Your task to perform on an android device: check data usage Image 0: 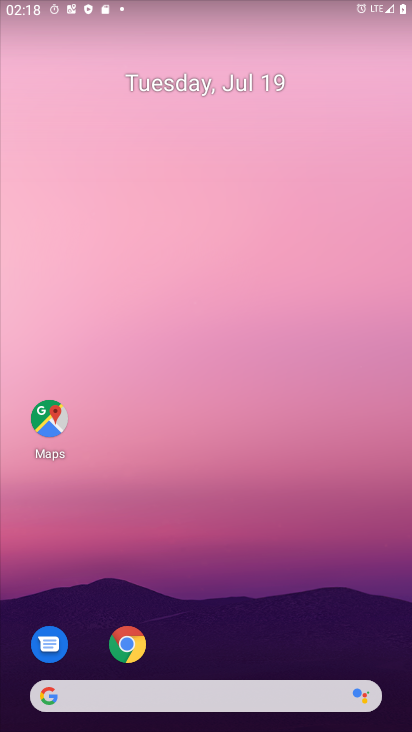
Step 0: drag from (234, 727) to (234, 211)
Your task to perform on an android device: check data usage Image 1: 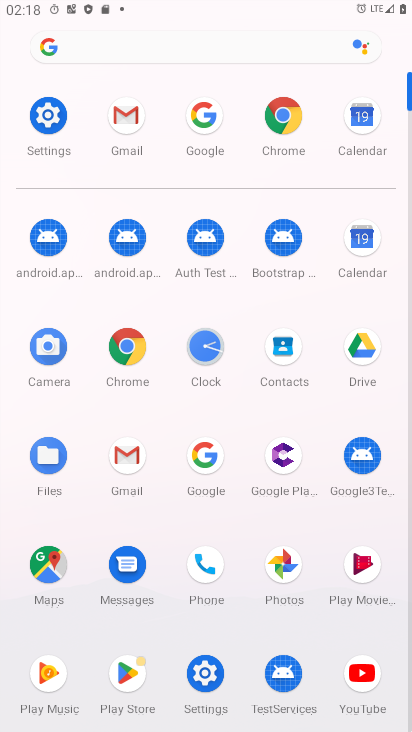
Step 1: click (55, 115)
Your task to perform on an android device: check data usage Image 2: 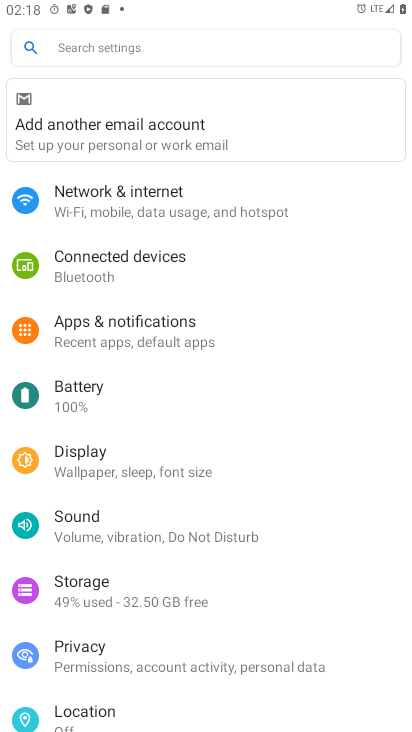
Step 2: click (108, 196)
Your task to perform on an android device: check data usage Image 3: 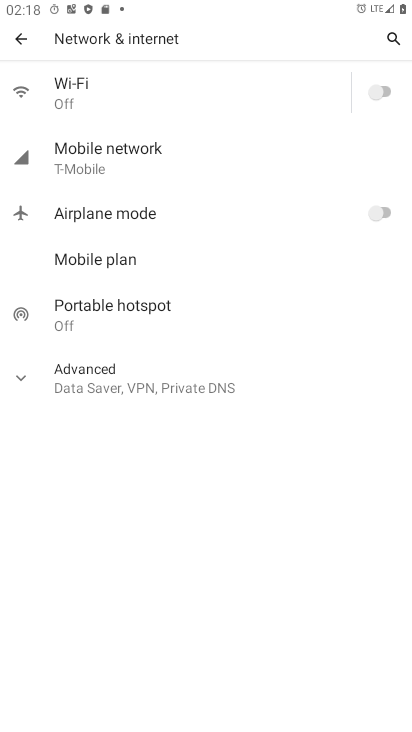
Step 3: click (119, 152)
Your task to perform on an android device: check data usage Image 4: 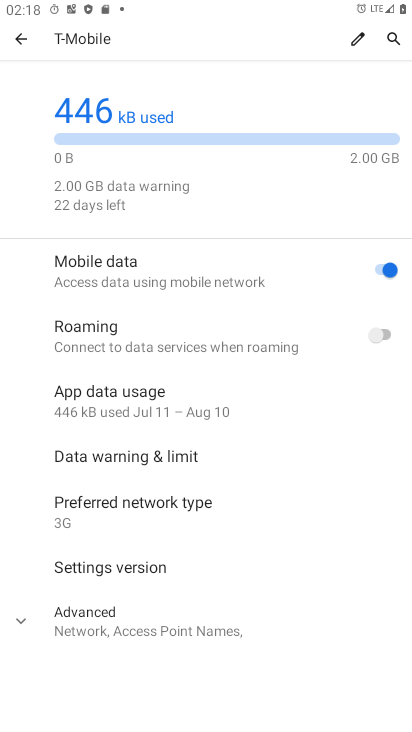
Step 4: click (111, 397)
Your task to perform on an android device: check data usage Image 5: 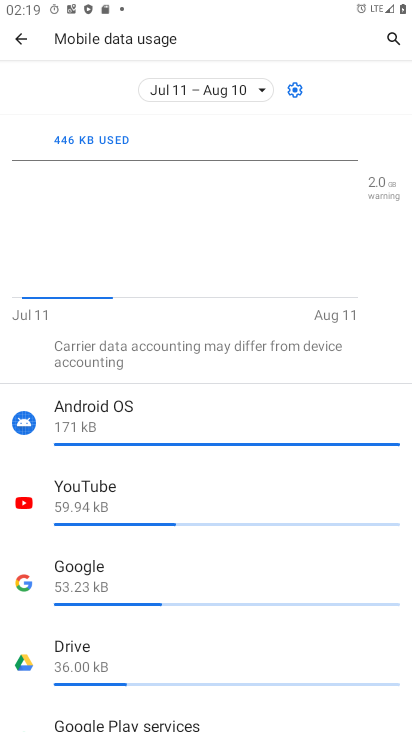
Step 5: task complete